Your task to perform on an android device: Go to wifi settings Image 0: 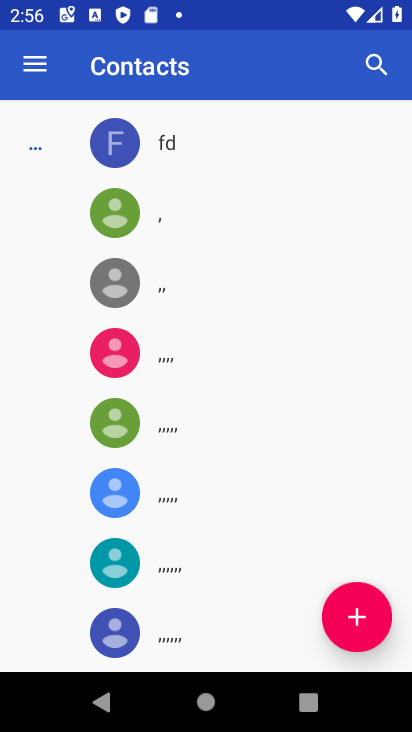
Step 0: press home button
Your task to perform on an android device: Go to wifi settings Image 1: 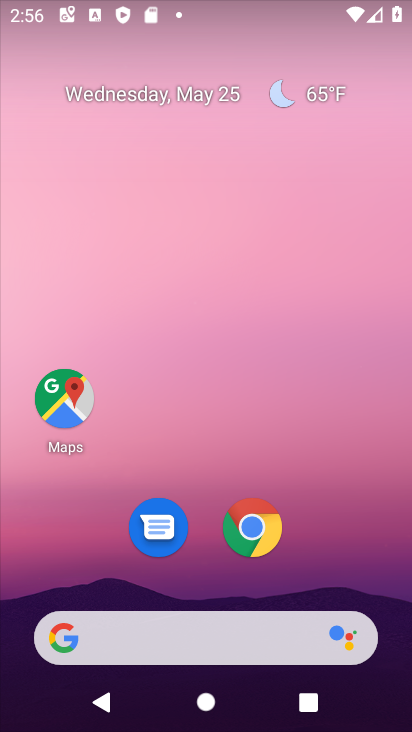
Step 1: drag from (276, 574) to (241, 68)
Your task to perform on an android device: Go to wifi settings Image 2: 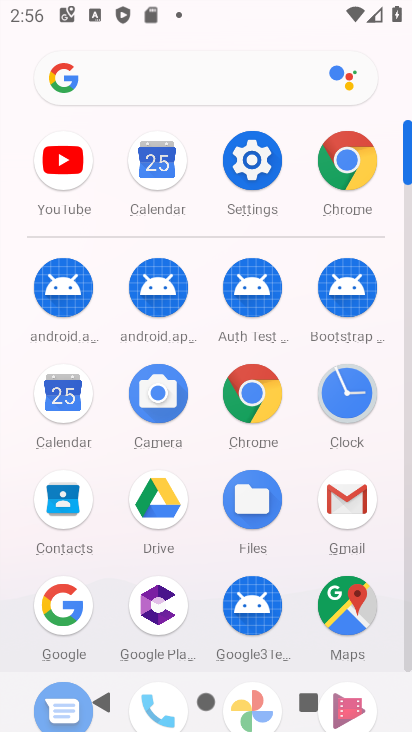
Step 2: click (248, 152)
Your task to perform on an android device: Go to wifi settings Image 3: 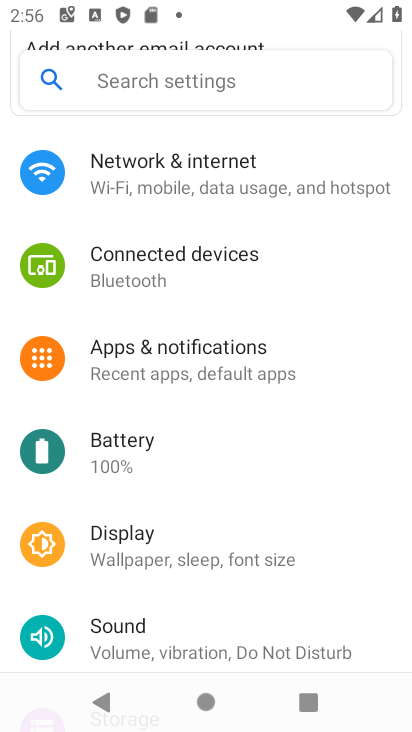
Step 3: click (297, 179)
Your task to perform on an android device: Go to wifi settings Image 4: 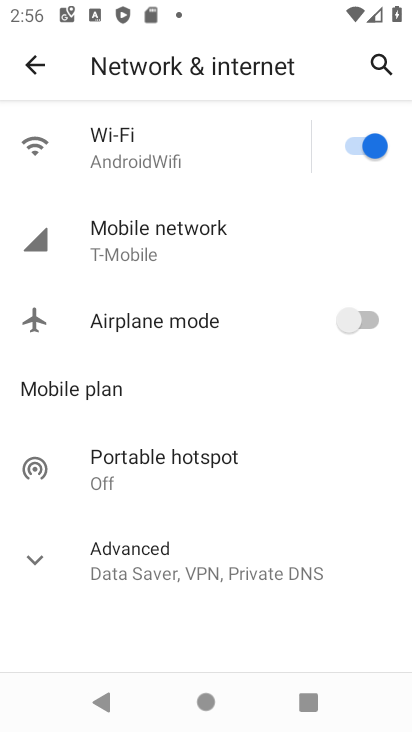
Step 4: click (153, 145)
Your task to perform on an android device: Go to wifi settings Image 5: 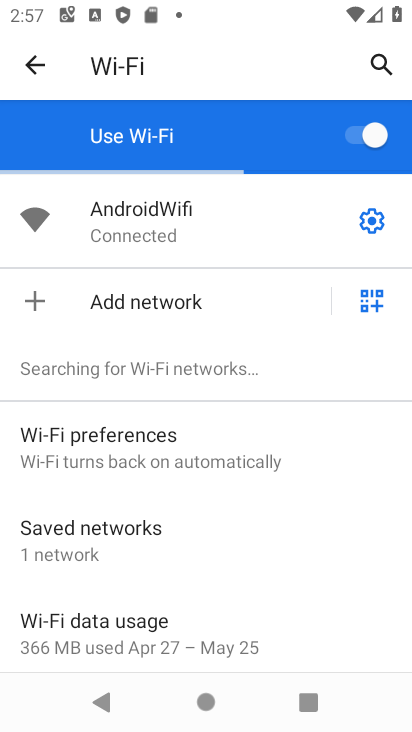
Step 5: task complete